Your task to perform on an android device: Open Reddit.com Image 0: 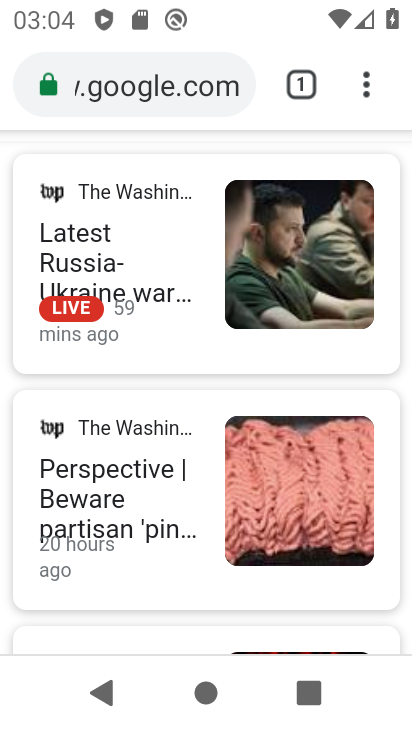
Step 0: click (188, 85)
Your task to perform on an android device: Open Reddit.com Image 1: 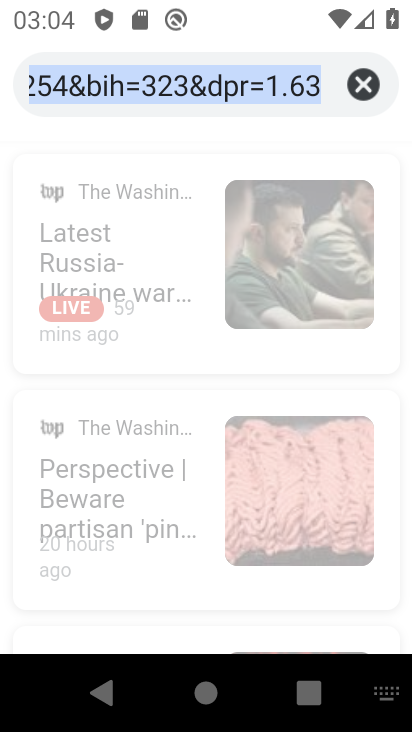
Step 1: type "reddit.com"
Your task to perform on an android device: Open Reddit.com Image 2: 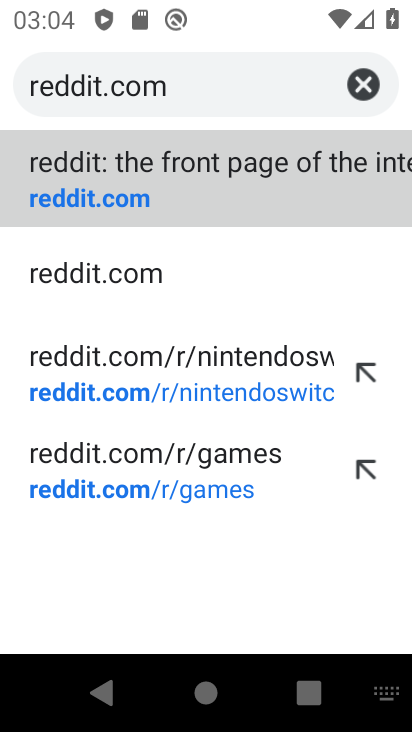
Step 2: click (81, 183)
Your task to perform on an android device: Open Reddit.com Image 3: 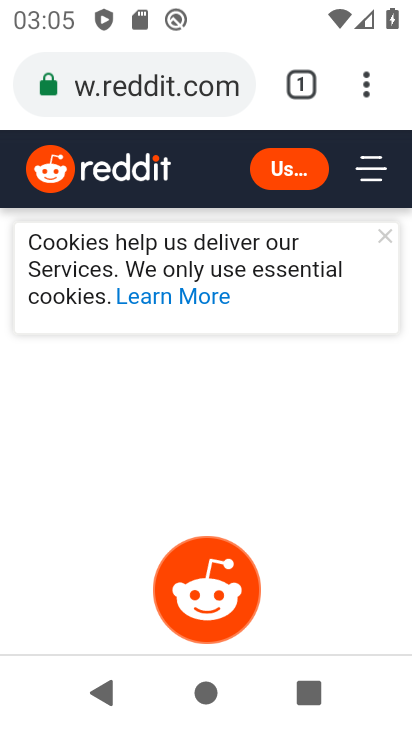
Step 3: task complete